Your task to perform on an android device: open chrome and create a bookmark for the current page Image 0: 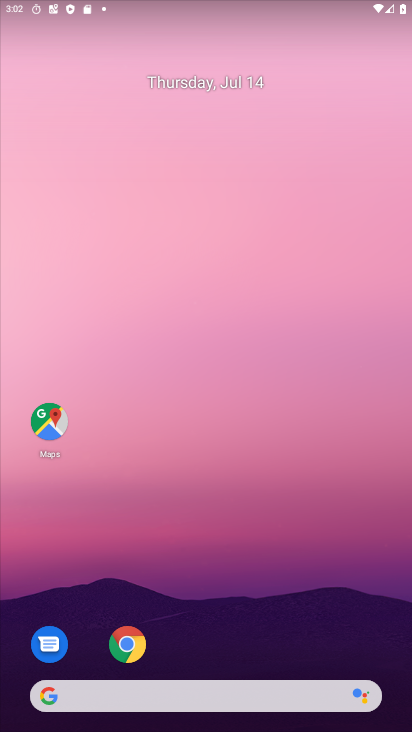
Step 0: click (128, 653)
Your task to perform on an android device: open chrome and create a bookmark for the current page Image 1: 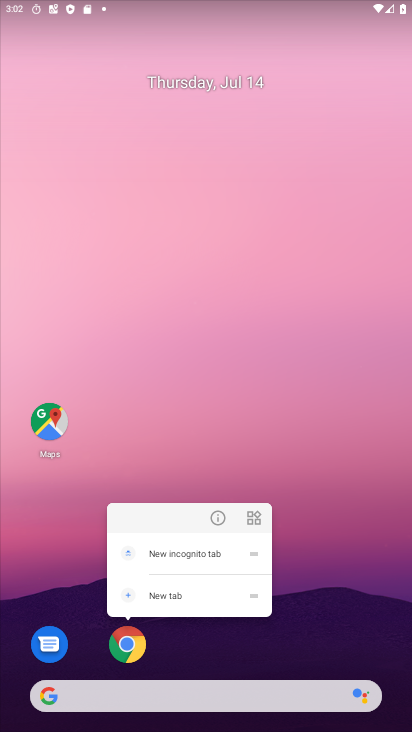
Step 1: click (137, 635)
Your task to perform on an android device: open chrome and create a bookmark for the current page Image 2: 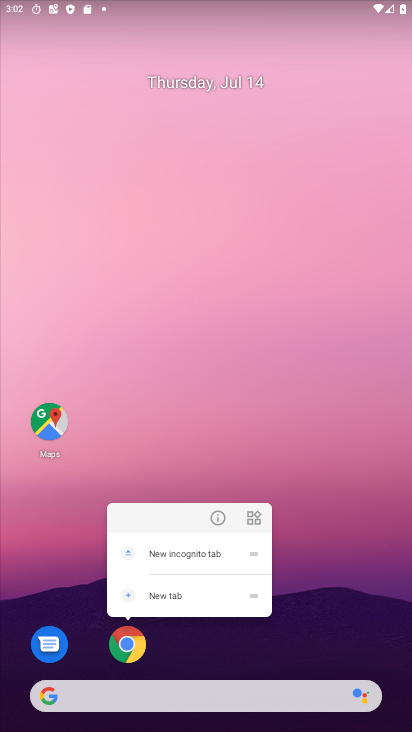
Step 2: task complete